Your task to perform on an android device: change keyboard looks Image 0: 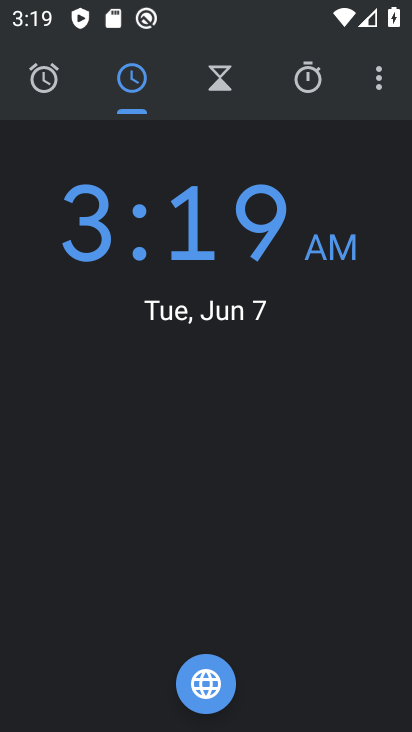
Step 0: press home button
Your task to perform on an android device: change keyboard looks Image 1: 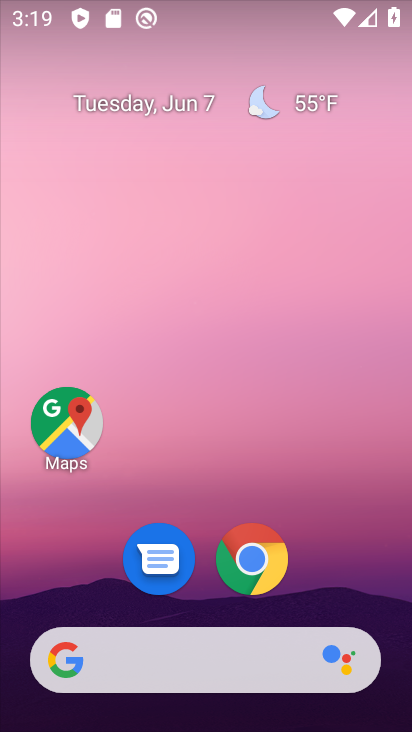
Step 1: drag from (239, 715) to (229, 169)
Your task to perform on an android device: change keyboard looks Image 2: 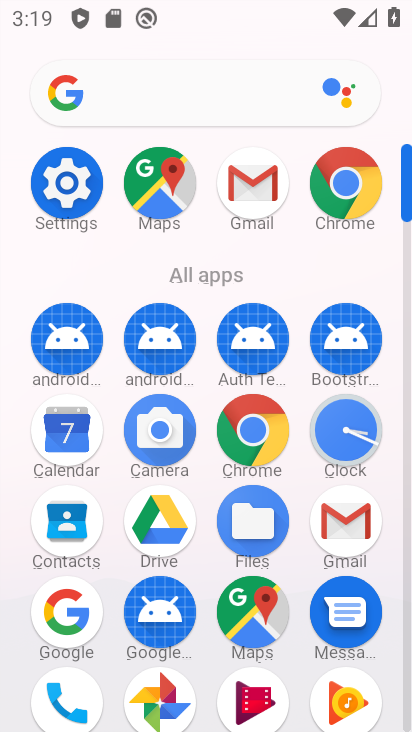
Step 2: click (75, 180)
Your task to perform on an android device: change keyboard looks Image 3: 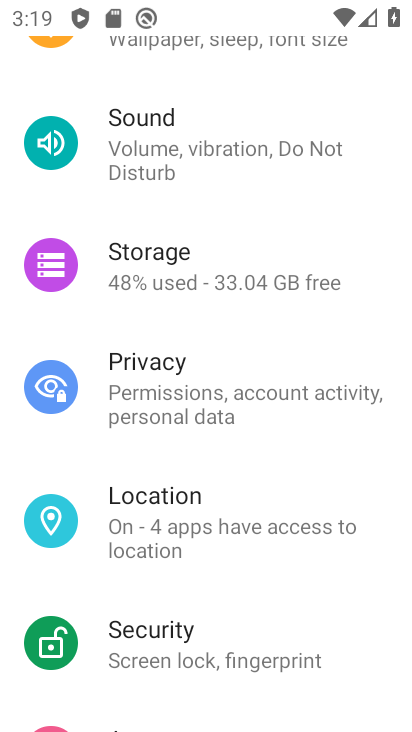
Step 3: drag from (198, 673) to (187, 228)
Your task to perform on an android device: change keyboard looks Image 4: 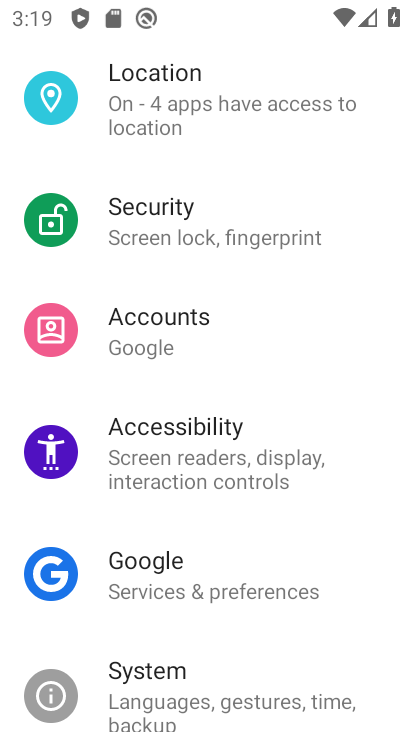
Step 4: drag from (179, 665) to (177, 318)
Your task to perform on an android device: change keyboard looks Image 5: 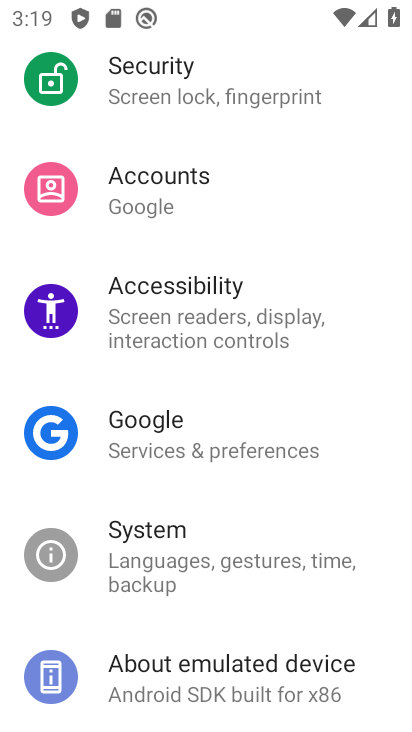
Step 5: click (146, 563)
Your task to perform on an android device: change keyboard looks Image 6: 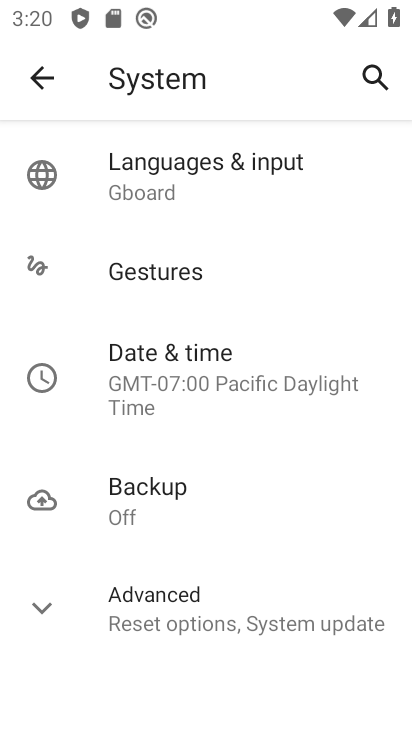
Step 6: click (170, 170)
Your task to perform on an android device: change keyboard looks Image 7: 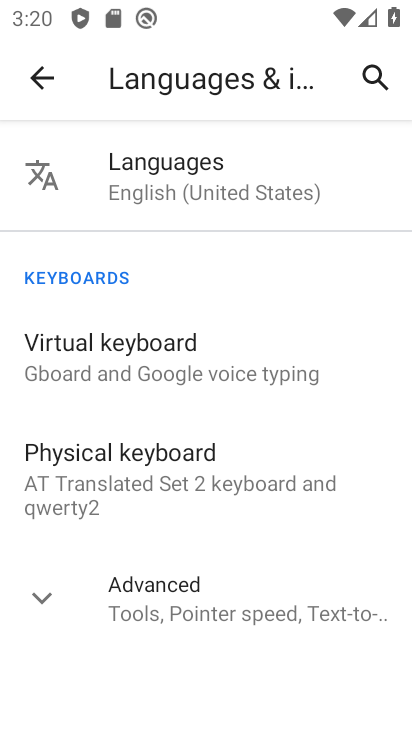
Step 7: click (143, 348)
Your task to perform on an android device: change keyboard looks Image 8: 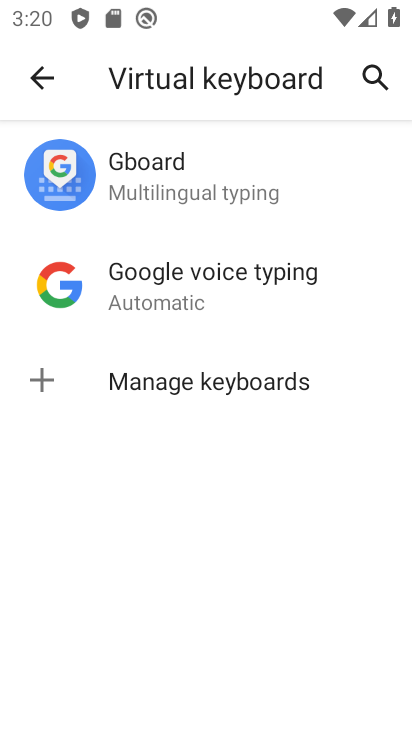
Step 8: click (147, 182)
Your task to perform on an android device: change keyboard looks Image 9: 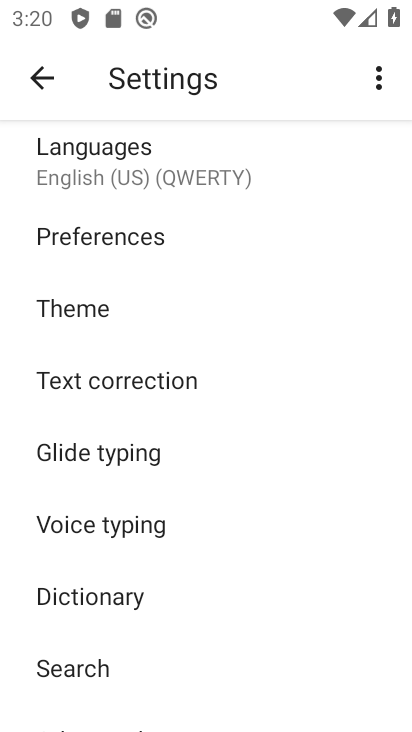
Step 9: click (52, 305)
Your task to perform on an android device: change keyboard looks Image 10: 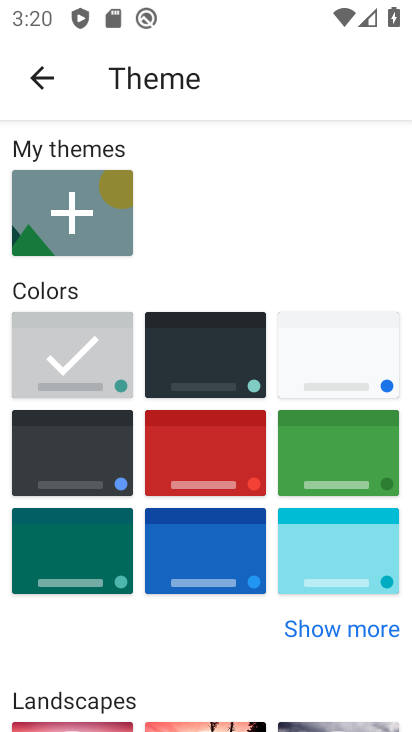
Step 10: click (187, 343)
Your task to perform on an android device: change keyboard looks Image 11: 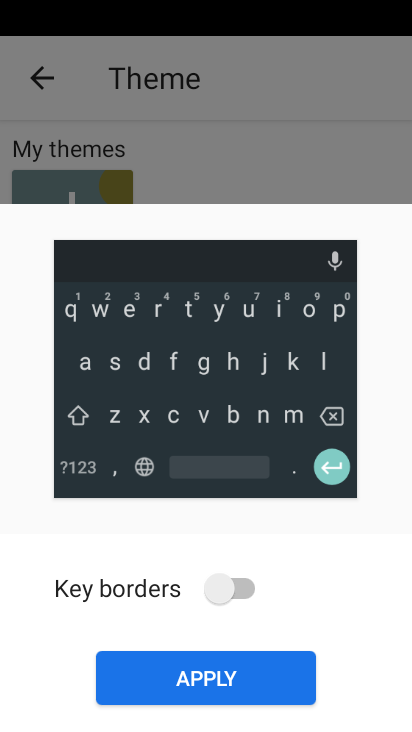
Step 11: click (245, 585)
Your task to perform on an android device: change keyboard looks Image 12: 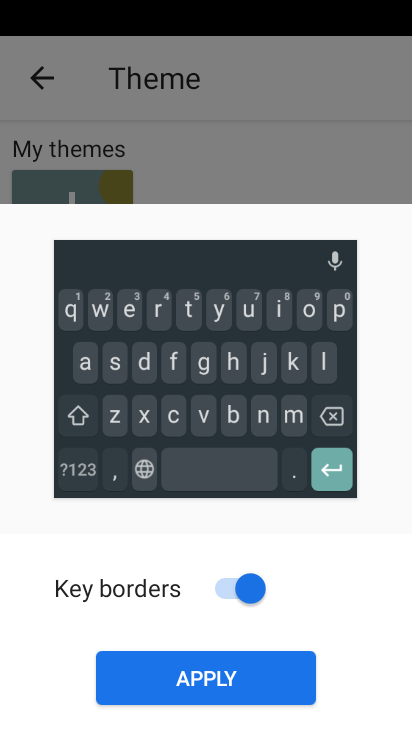
Step 12: click (227, 675)
Your task to perform on an android device: change keyboard looks Image 13: 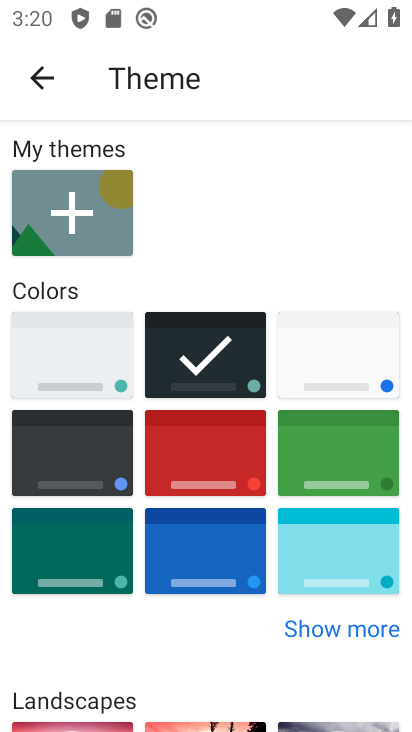
Step 13: task complete